Your task to perform on an android device: Clear the cart on target. Search for usb-c to usb-a on target, select the first entry, and add it to the cart. Image 0: 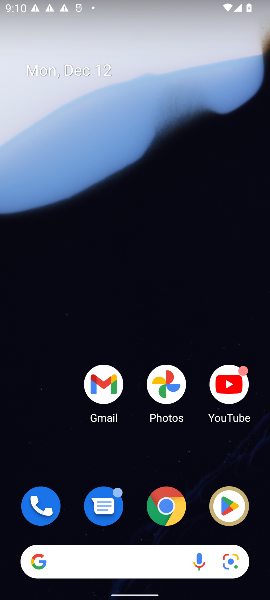
Step 0: click (134, 563)
Your task to perform on an android device: Clear the cart on target. Search for usb-c to usb-a on target, select the first entry, and add it to the cart. Image 1: 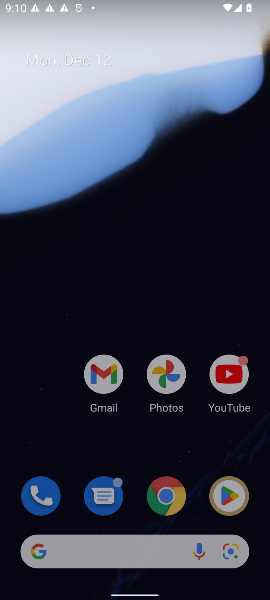
Step 1: click (161, 513)
Your task to perform on an android device: Clear the cart on target. Search for usb-c to usb-a on target, select the first entry, and add it to the cart. Image 2: 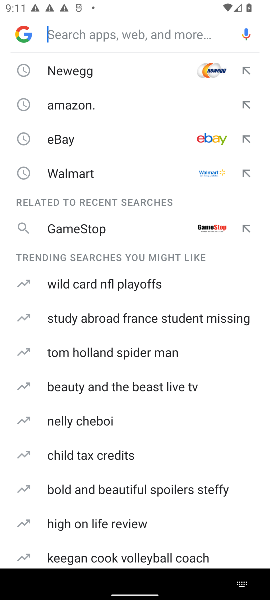
Step 2: click (130, 81)
Your task to perform on an android device: Clear the cart on target. Search for usb-c to usb-a on target, select the first entry, and add it to the cart. Image 3: 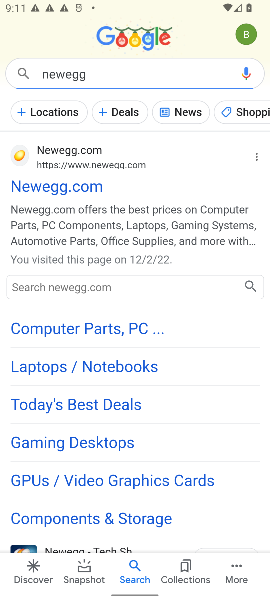
Step 3: task complete